Your task to perform on an android device: allow cookies in the chrome app Image 0: 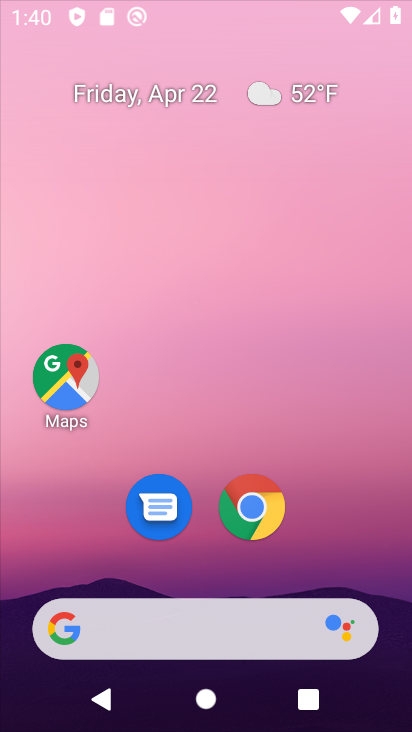
Step 0: press home button
Your task to perform on an android device: allow cookies in the chrome app Image 1: 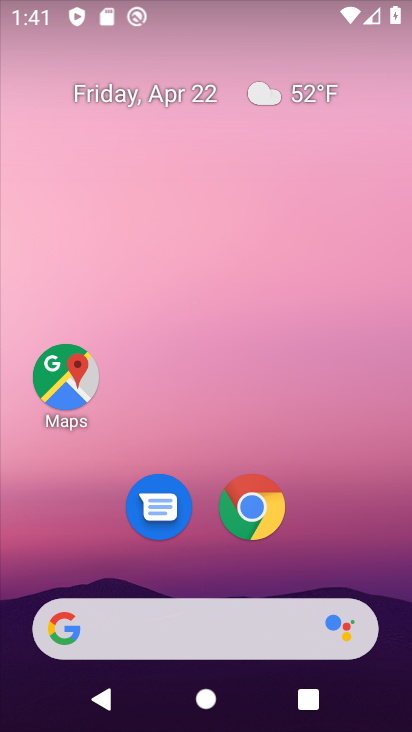
Step 1: drag from (211, 628) to (337, 178)
Your task to perform on an android device: allow cookies in the chrome app Image 2: 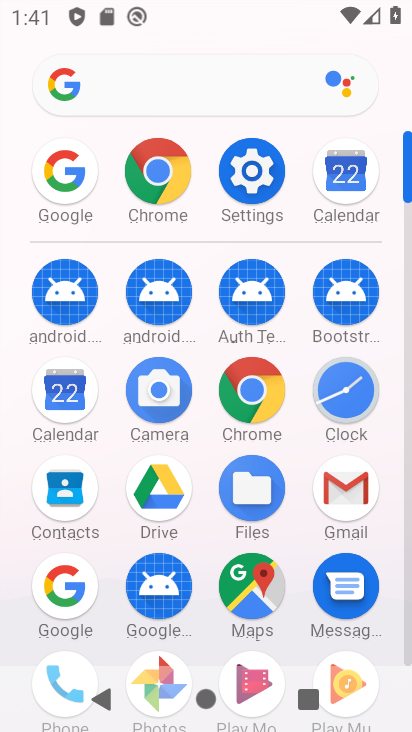
Step 2: click (161, 182)
Your task to perform on an android device: allow cookies in the chrome app Image 3: 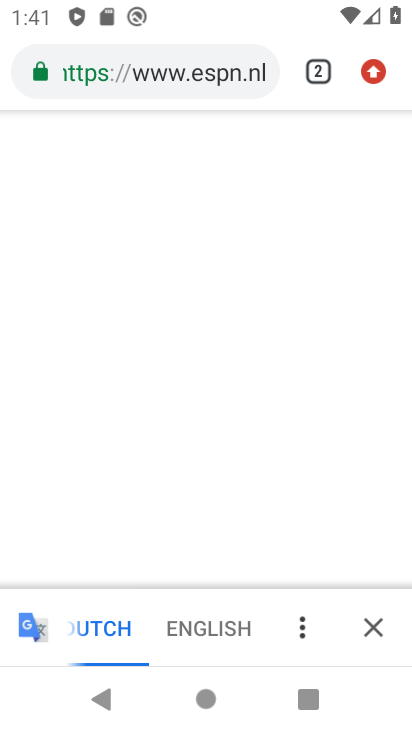
Step 3: click (368, 84)
Your task to perform on an android device: allow cookies in the chrome app Image 4: 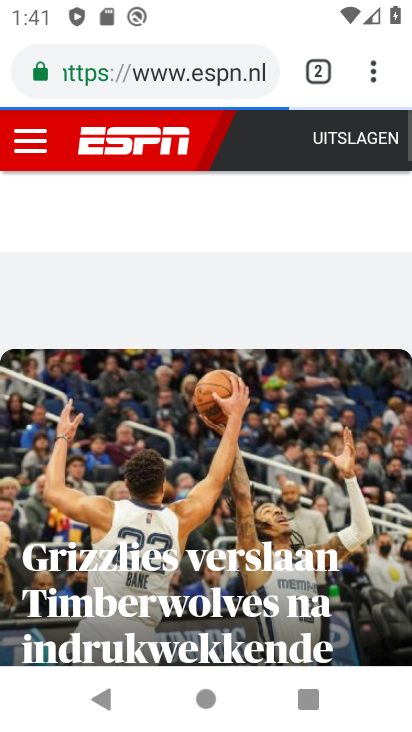
Step 4: drag from (374, 79) to (128, 506)
Your task to perform on an android device: allow cookies in the chrome app Image 5: 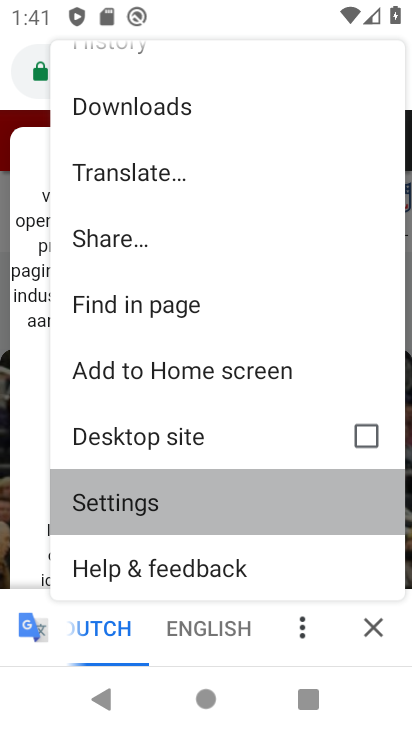
Step 5: click (128, 506)
Your task to perform on an android device: allow cookies in the chrome app Image 6: 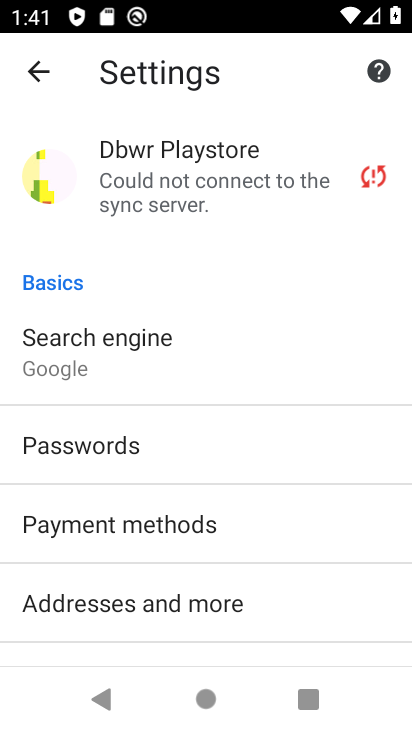
Step 6: drag from (96, 582) to (336, 118)
Your task to perform on an android device: allow cookies in the chrome app Image 7: 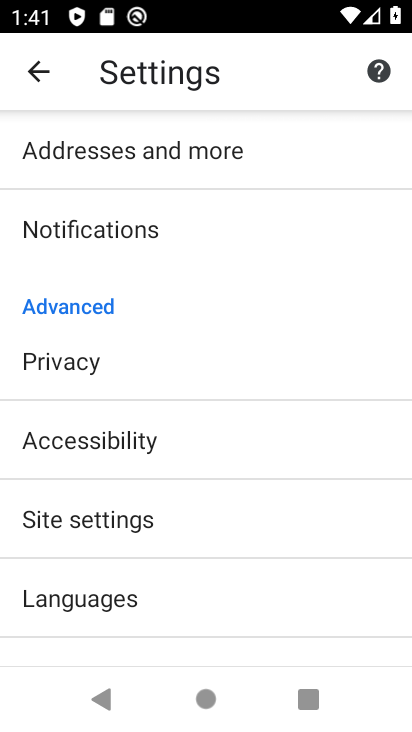
Step 7: click (112, 518)
Your task to perform on an android device: allow cookies in the chrome app Image 8: 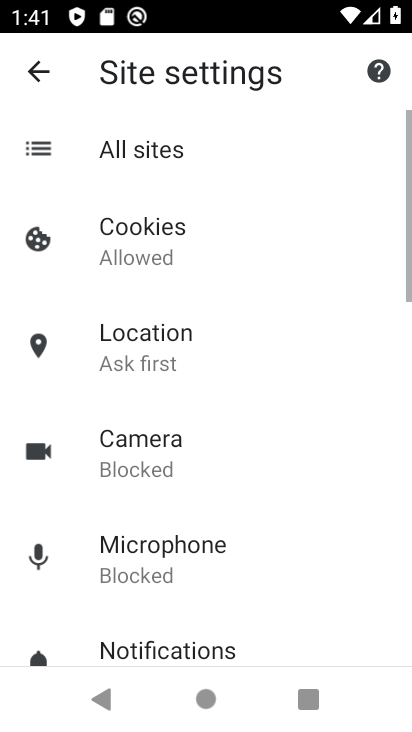
Step 8: click (153, 256)
Your task to perform on an android device: allow cookies in the chrome app Image 9: 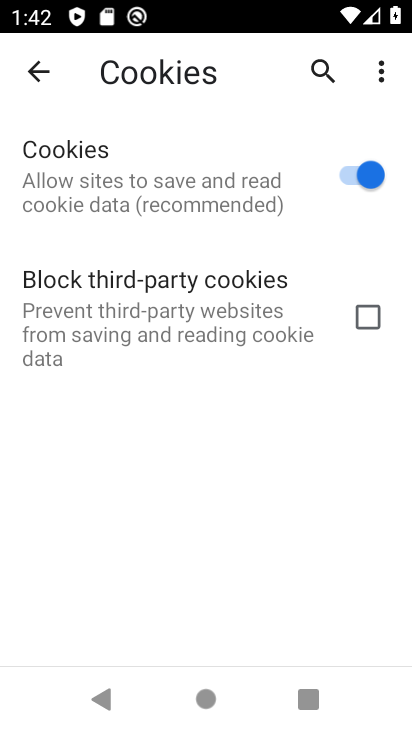
Step 9: task complete